Your task to perform on an android device: Show me productivity apps on the Play Store Image 0: 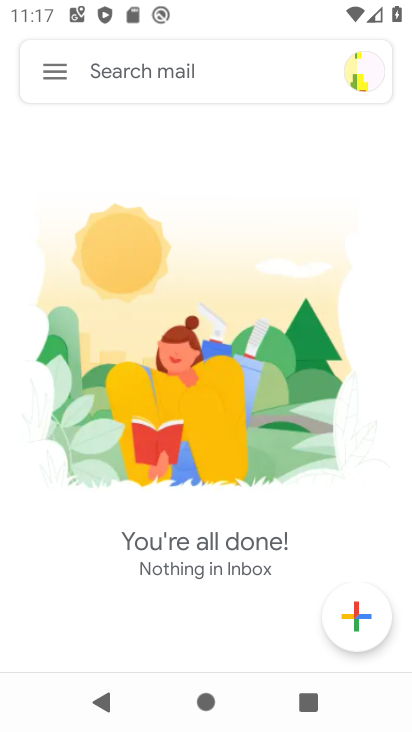
Step 0: press home button
Your task to perform on an android device: Show me productivity apps on the Play Store Image 1: 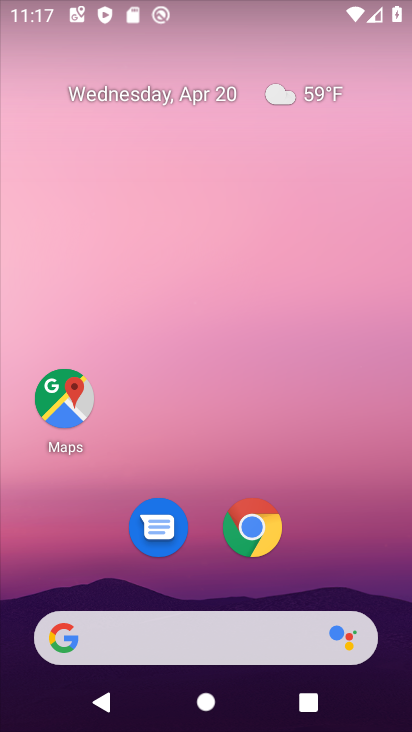
Step 1: drag from (365, 559) to (359, 153)
Your task to perform on an android device: Show me productivity apps on the Play Store Image 2: 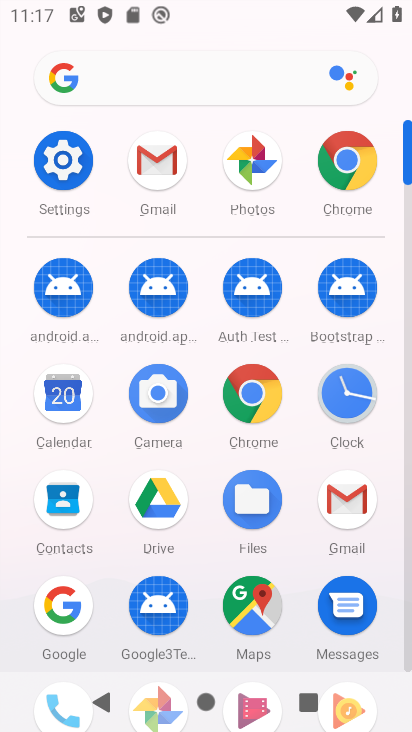
Step 2: drag from (107, 555) to (109, 371)
Your task to perform on an android device: Show me productivity apps on the Play Store Image 3: 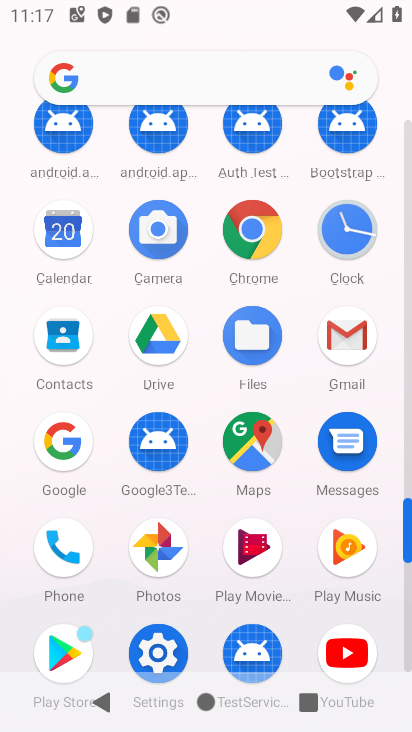
Step 3: click (57, 653)
Your task to perform on an android device: Show me productivity apps on the Play Store Image 4: 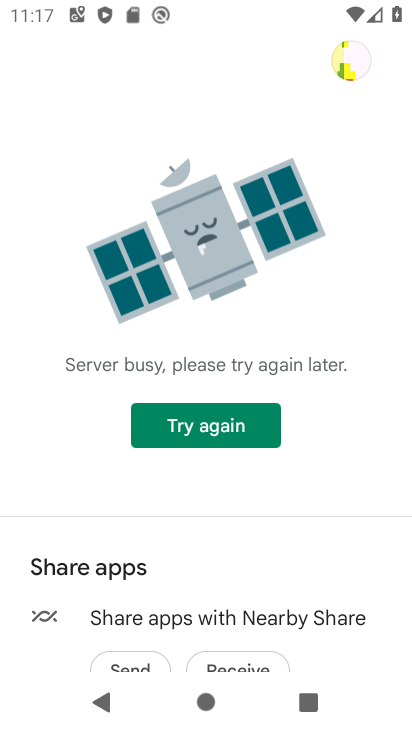
Step 4: task complete